Your task to perform on an android device: allow cookies in the chrome app Image 0: 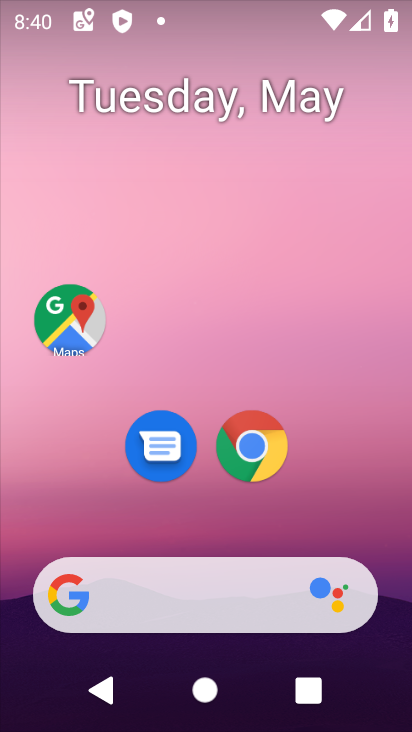
Step 0: click (246, 444)
Your task to perform on an android device: allow cookies in the chrome app Image 1: 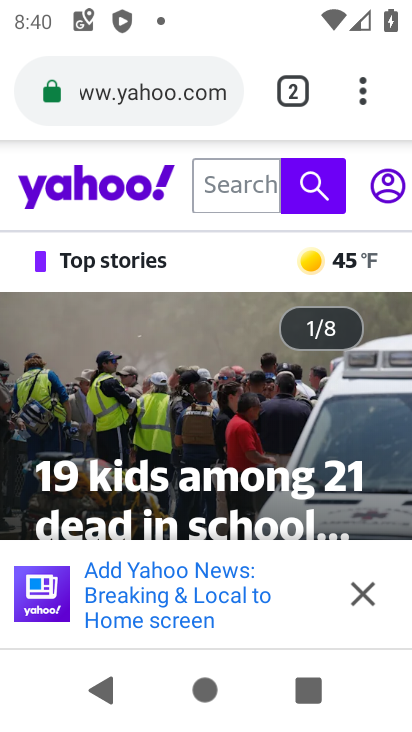
Step 1: click (363, 93)
Your task to perform on an android device: allow cookies in the chrome app Image 2: 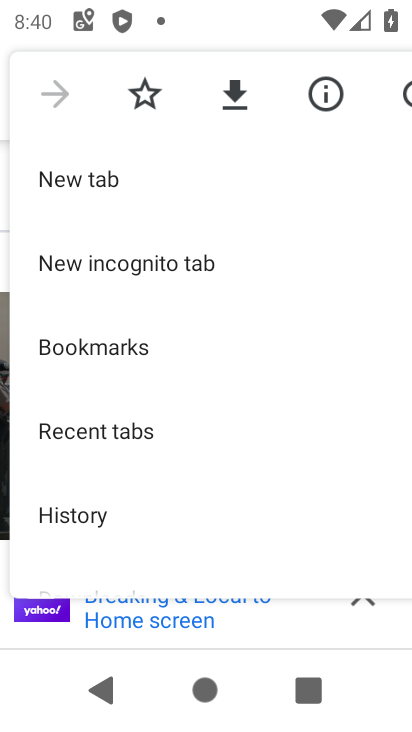
Step 2: drag from (212, 422) to (214, 134)
Your task to perform on an android device: allow cookies in the chrome app Image 3: 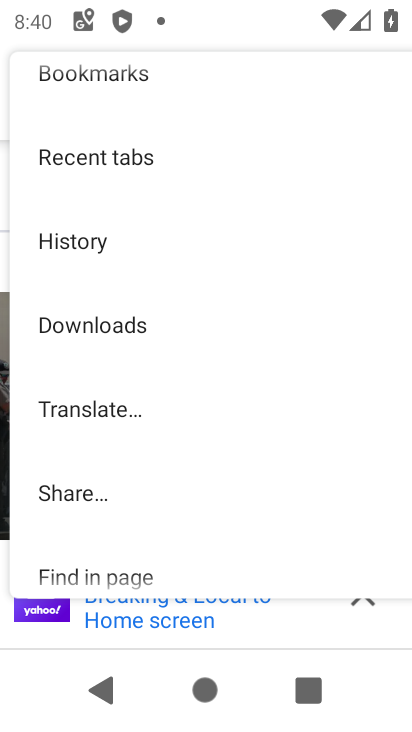
Step 3: drag from (200, 490) to (206, 177)
Your task to perform on an android device: allow cookies in the chrome app Image 4: 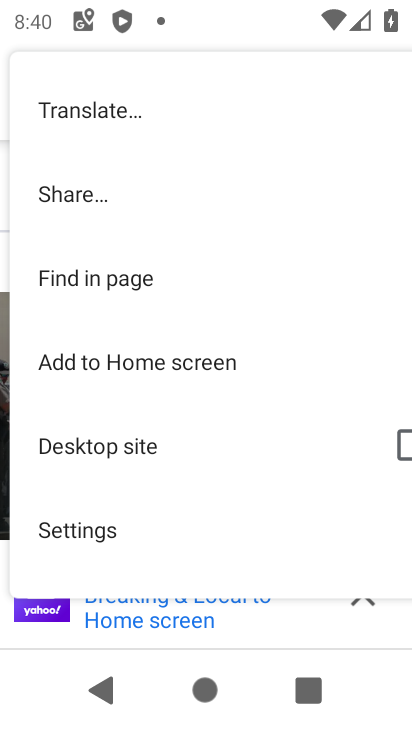
Step 4: drag from (180, 461) to (179, 152)
Your task to perform on an android device: allow cookies in the chrome app Image 5: 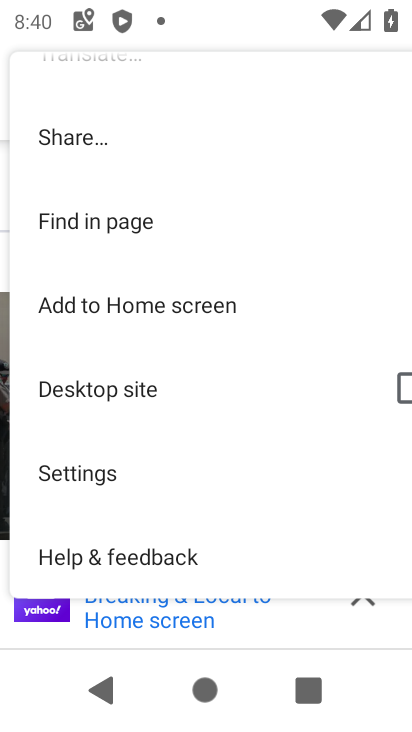
Step 5: click (68, 477)
Your task to perform on an android device: allow cookies in the chrome app Image 6: 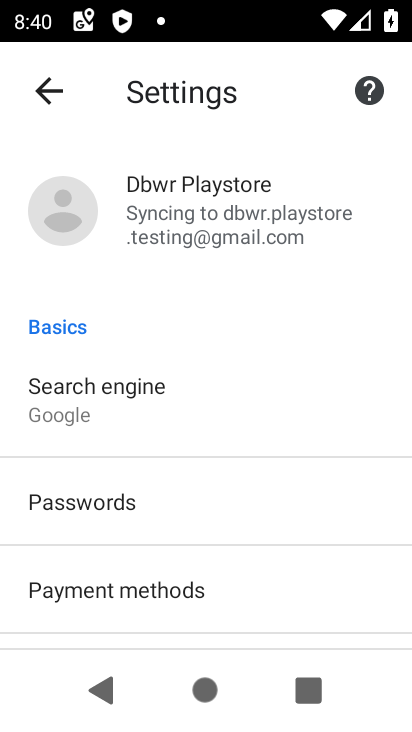
Step 6: drag from (198, 473) to (201, 187)
Your task to perform on an android device: allow cookies in the chrome app Image 7: 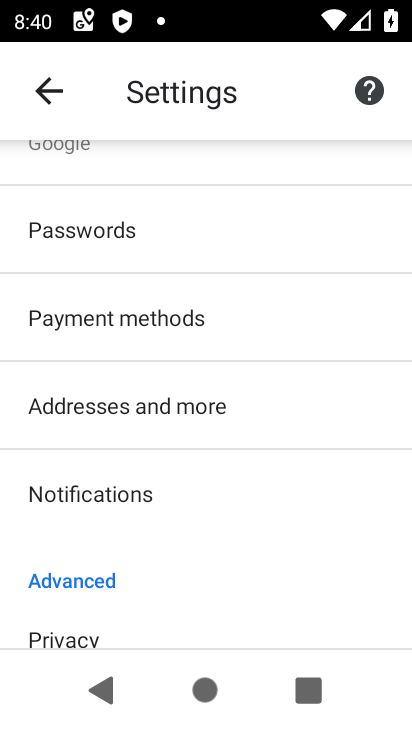
Step 7: drag from (206, 467) to (202, 150)
Your task to perform on an android device: allow cookies in the chrome app Image 8: 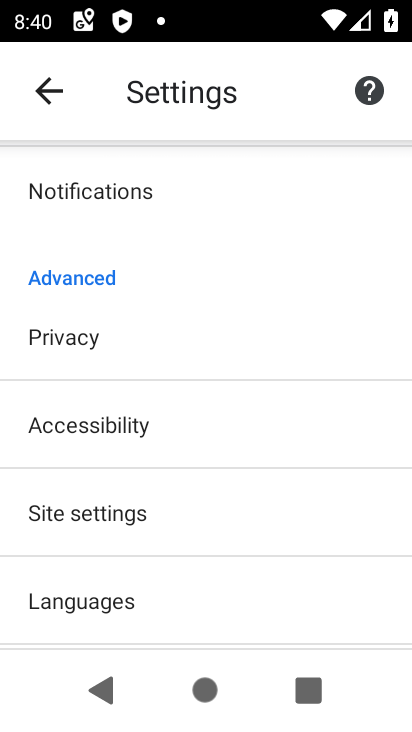
Step 8: click (116, 517)
Your task to perform on an android device: allow cookies in the chrome app Image 9: 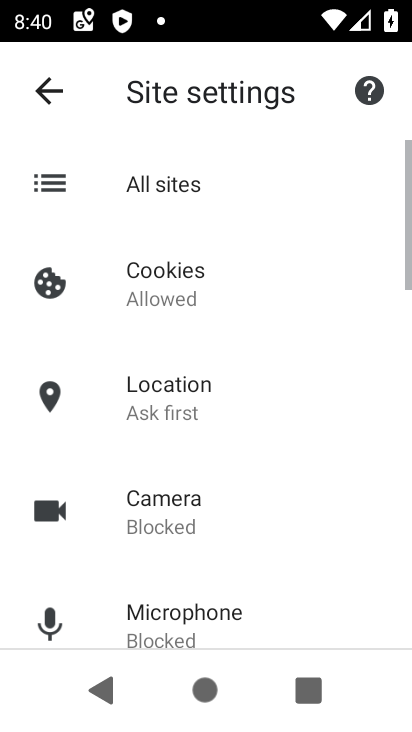
Step 9: click (185, 285)
Your task to perform on an android device: allow cookies in the chrome app Image 10: 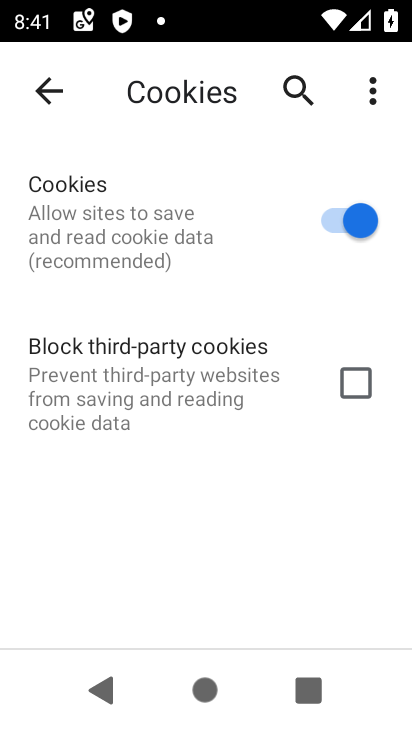
Step 10: task complete